Your task to perform on an android device: check android version Image 0: 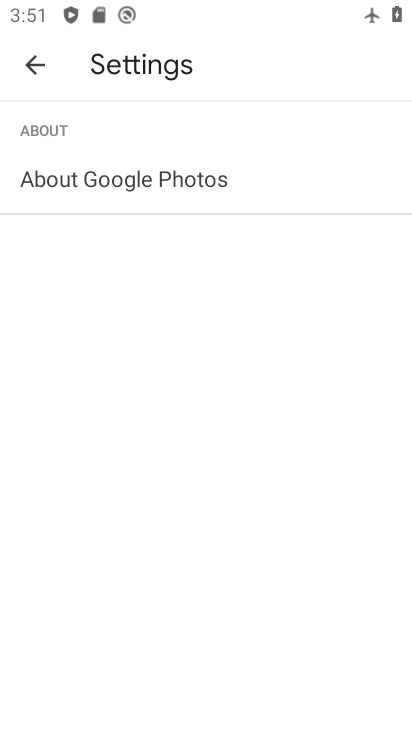
Step 0: press home button
Your task to perform on an android device: check android version Image 1: 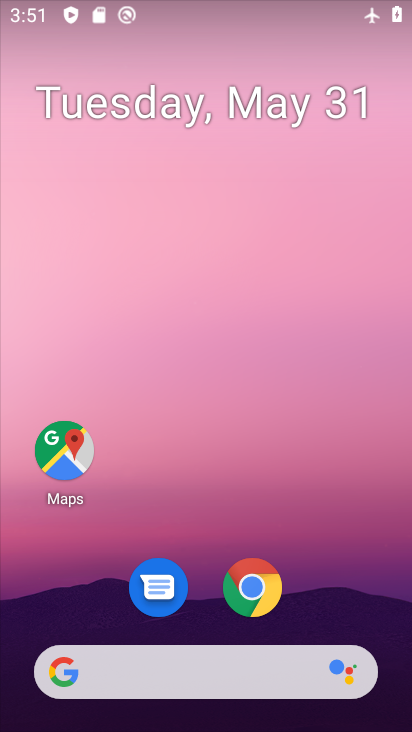
Step 1: drag from (140, 489) to (231, 199)
Your task to perform on an android device: check android version Image 2: 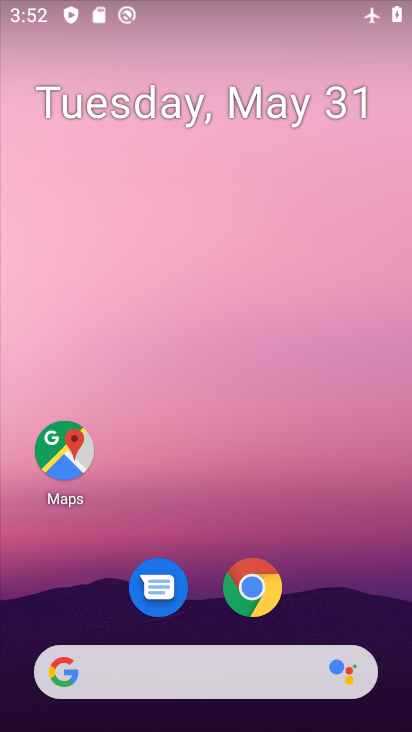
Step 2: drag from (63, 626) to (192, 191)
Your task to perform on an android device: check android version Image 3: 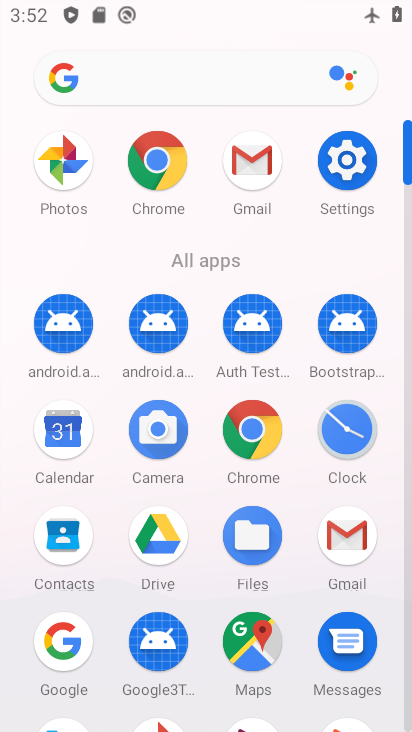
Step 3: drag from (105, 587) to (216, 283)
Your task to perform on an android device: check android version Image 4: 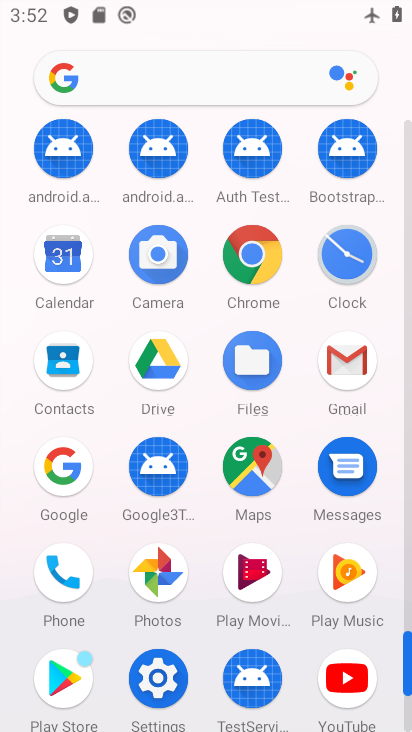
Step 4: click (151, 686)
Your task to perform on an android device: check android version Image 5: 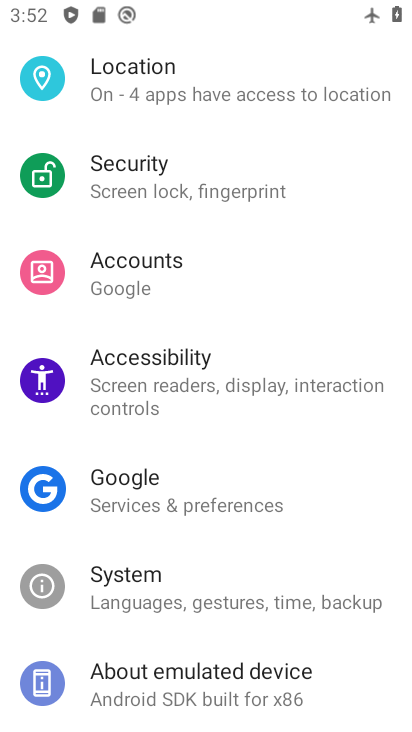
Step 5: click (199, 698)
Your task to perform on an android device: check android version Image 6: 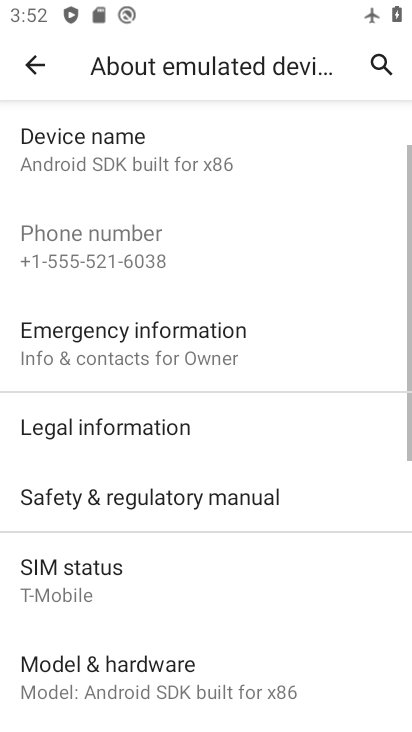
Step 6: drag from (206, 517) to (257, 174)
Your task to perform on an android device: check android version Image 7: 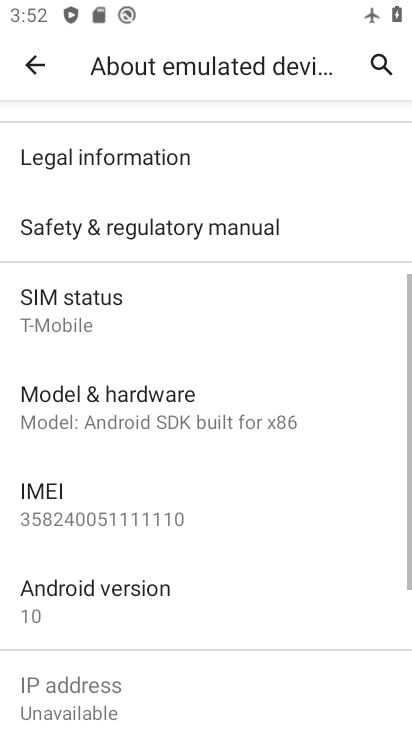
Step 7: click (215, 581)
Your task to perform on an android device: check android version Image 8: 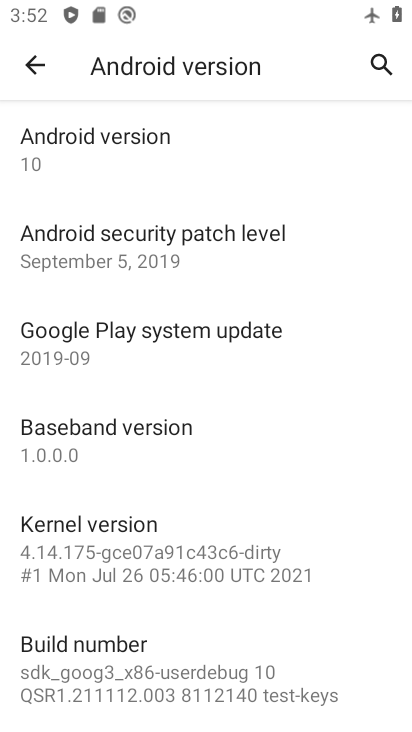
Step 8: task complete